Your task to perform on an android device: Go to settings Image 0: 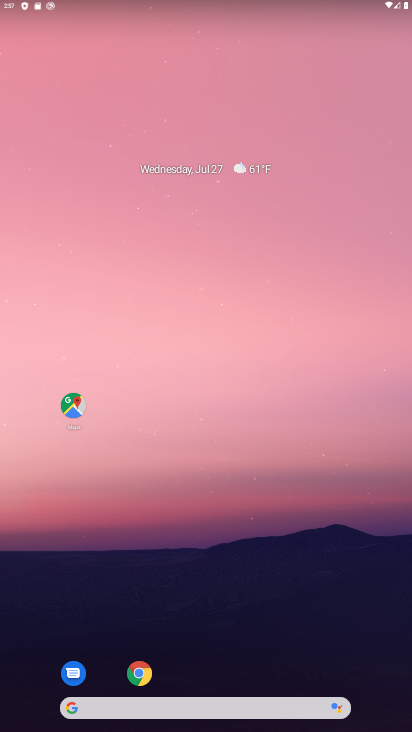
Step 0: drag from (329, 650) to (233, 81)
Your task to perform on an android device: Go to settings Image 1: 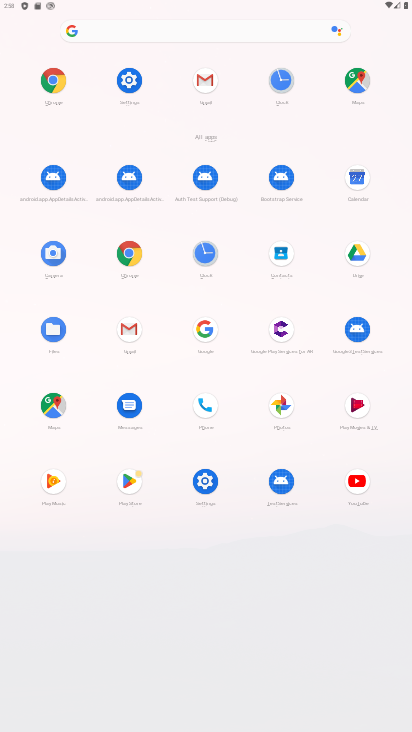
Step 1: click (205, 487)
Your task to perform on an android device: Go to settings Image 2: 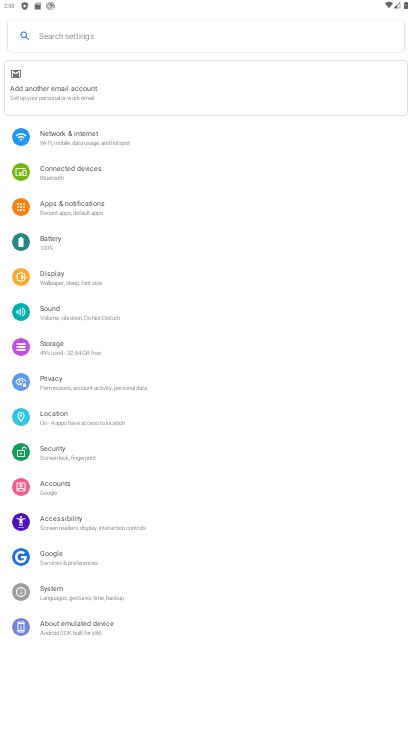
Step 2: task complete